Your task to perform on an android device: turn on the 24-hour format for clock Image 0: 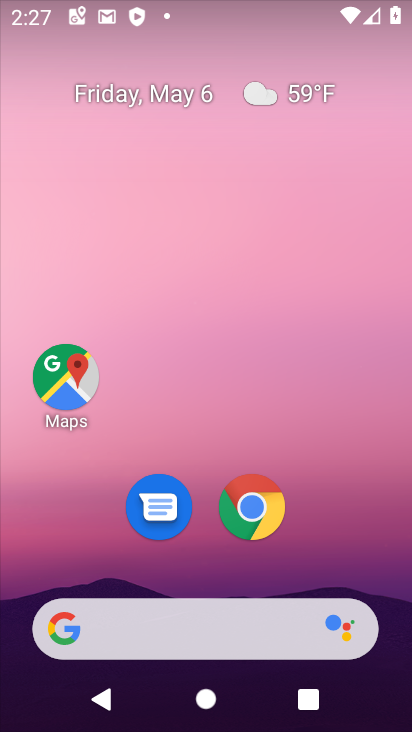
Step 0: drag from (322, 532) to (320, 131)
Your task to perform on an android device: turn on the 24-hour format for clock Image 1: 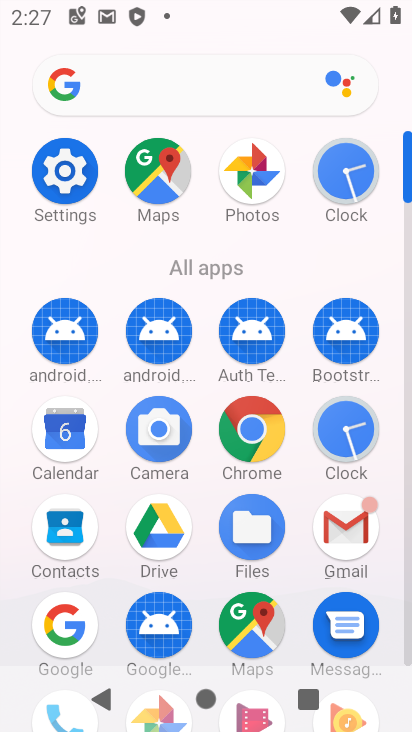
Step 1: click (345, 441)
Your task to perform on an android device: turn on the 24-hour format for clock Image 2: 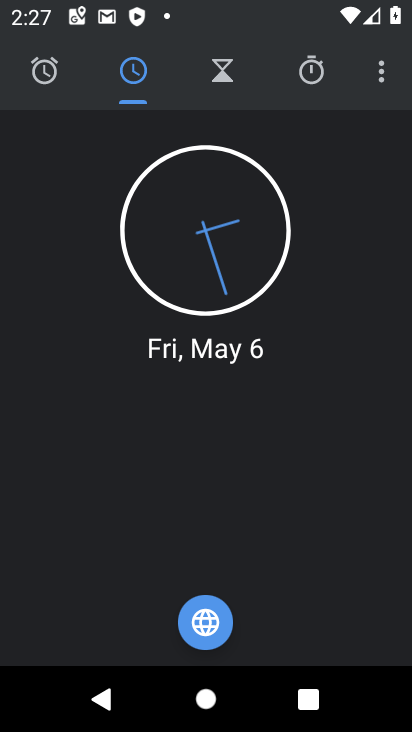
Step 2: click (388, 78)
Your task to perform on an android device: turn on the 24-hour format for clock Image 3: 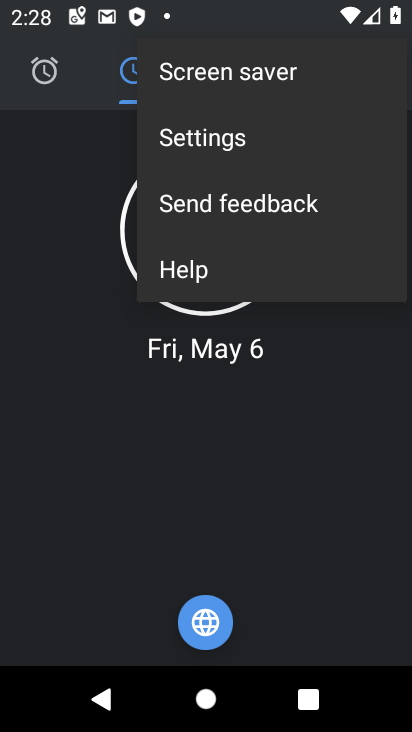
Step 3: click (240, 137)
Your task to perform on an android device: turn on the 24-hour format for clock Image 4: 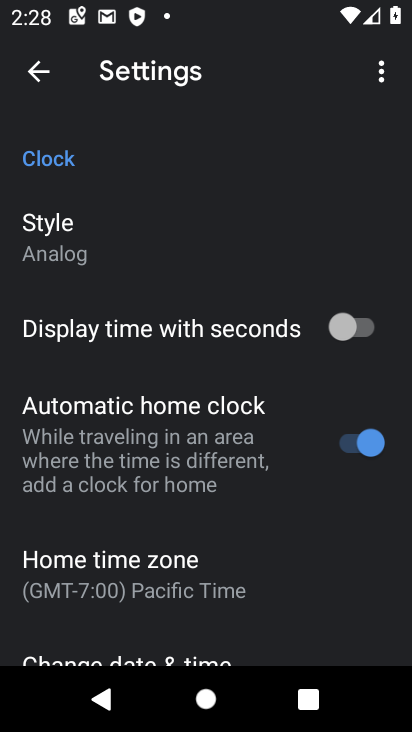
Step 4: drag from (227, 588) to (249, 366)
Your task to perform on an android device: turn on the 24-hour format for clock Image 5: 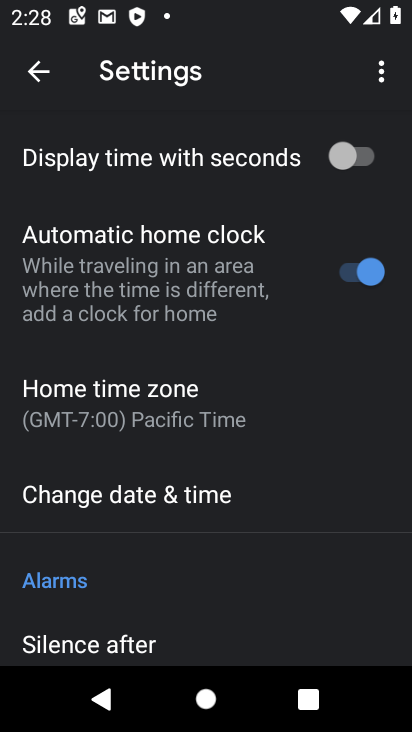
Step 5: drag from (210, 559) to (213, 252)
Your task to perform on an android device: turn on the 24-hour format for clock Image 6: 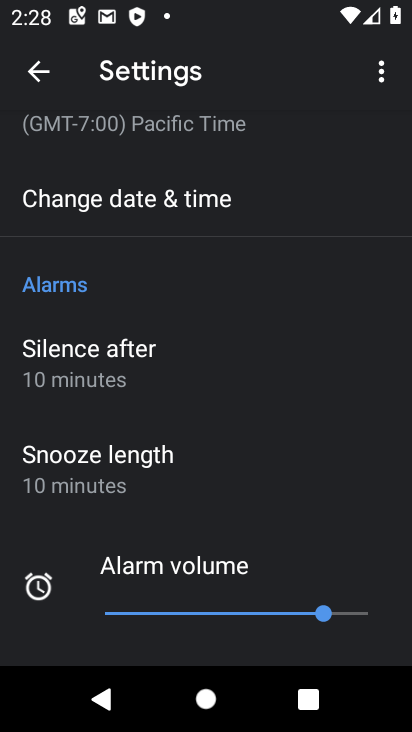
Step 6: drag from (238, 499) to (285, 169)
Your task to perform on an android device: turn on the 24-hour format for clock Image 7: 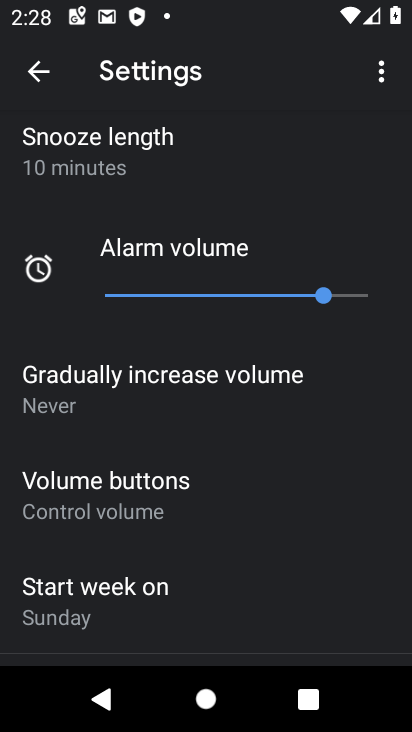
Step 7: drag from (265, 330) to (267, 609)
Your task to perform on an android device: turn on the 24-hour format for clock Image 8: 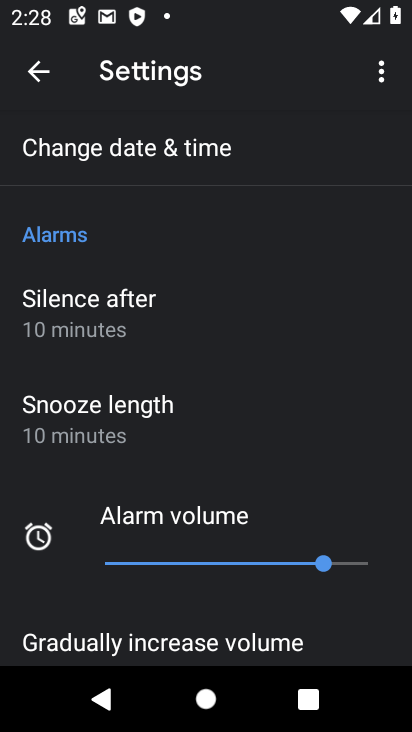
Step 8: click (192, 161)
Your task to perform on an android device: turn on the 24-hour format for clock Image 9: 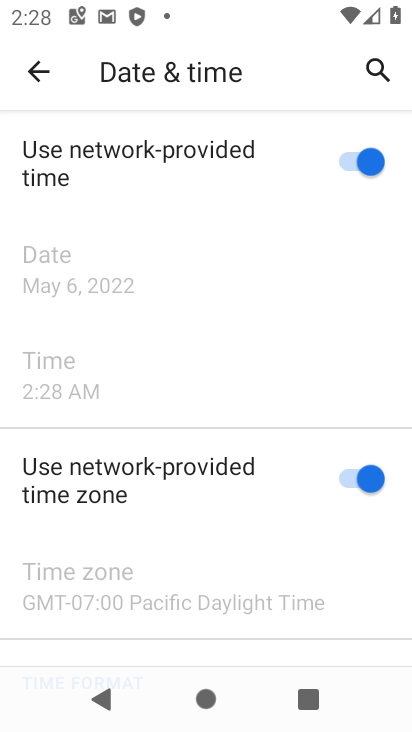
Step 9: drag from (182, 567) to (212, 239)
Your task to perform on an android device: turn on the 24-hour format for clock Image 10: 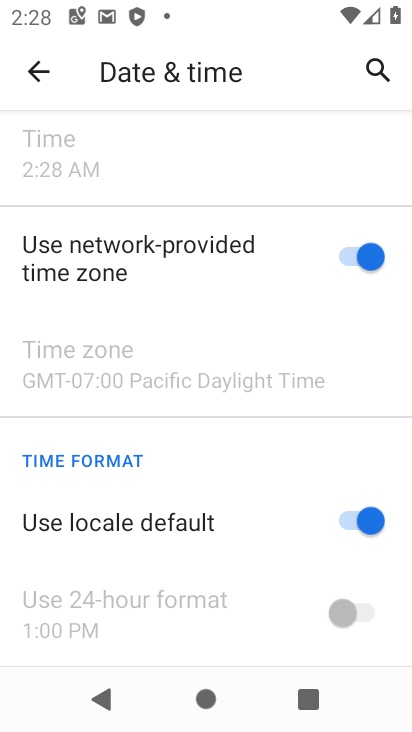
Step 10: click (372, 518)
Your task to perform on an android device: turn on the 24-hour format for clock Image 11: 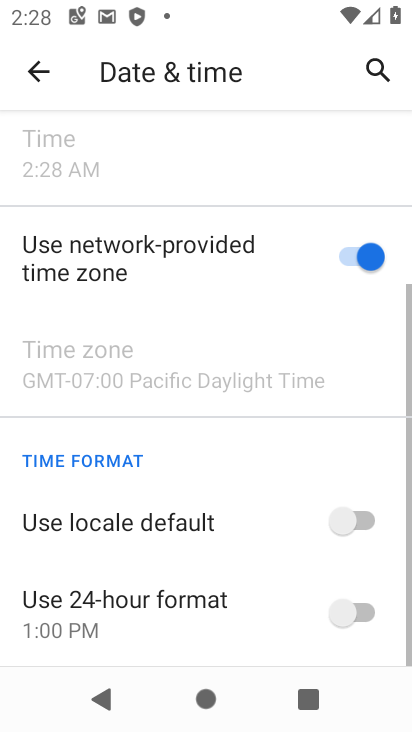
Step 11: click (346, 612)
Your task to perform on an android device: turn on the 24-hour format for clock Image 12: 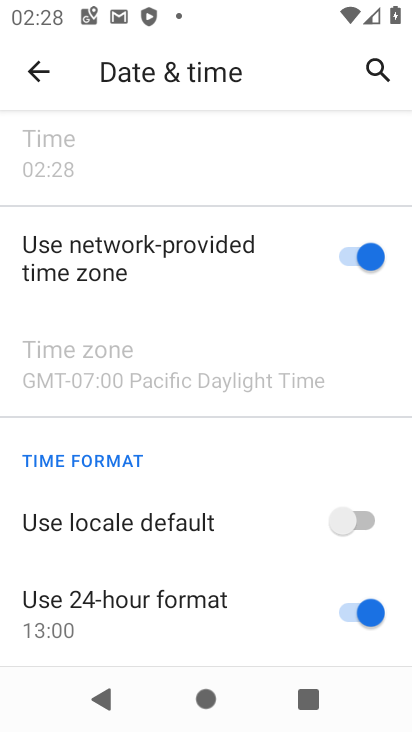
Step 12: task complete